Your task to perform on an android device: turn off notifications in google photos Image 0: 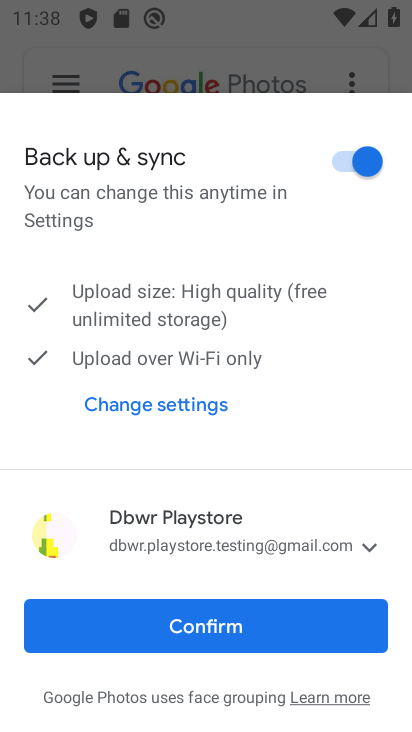
Step 0: click (218, 628)
Your task to perform on an android device: turn off notifications in google photos Image 1: 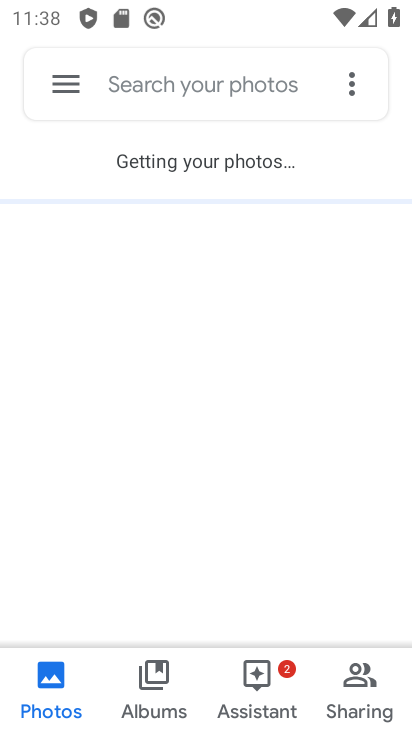
Step 1: click (70, 70)
Your task to perform on an android device: turn off notifications in google photos Image 2: 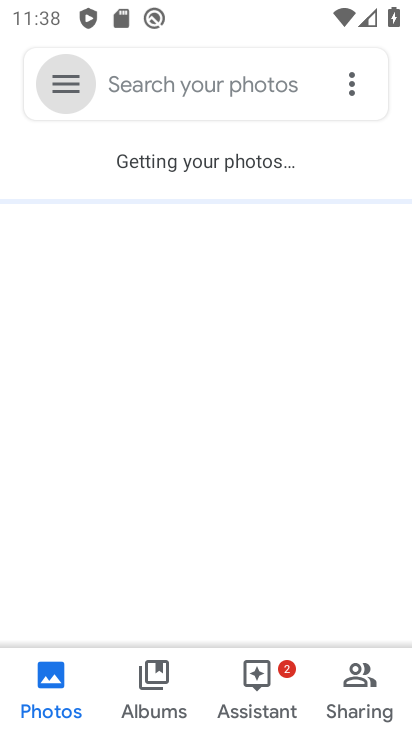
Step 2: click (70, 70)
Your task to perform on an android device: turn off notifications in google photos Image 3: 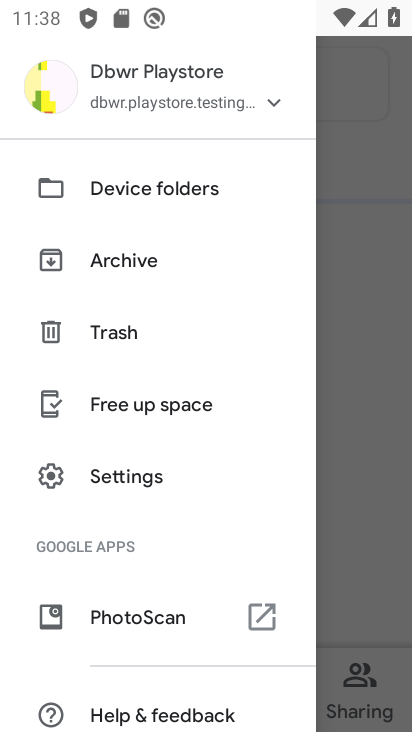
Step 3: click (117, 470)
Your task to perform on an android device: turn off notifications in google photos Image 4: 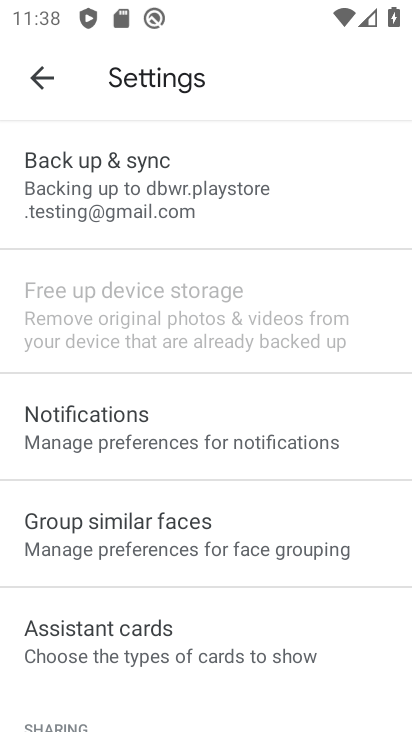
Step 4: click (109, 412)
Your task to perform on an android device: turn off notifications in google photos Image 5: 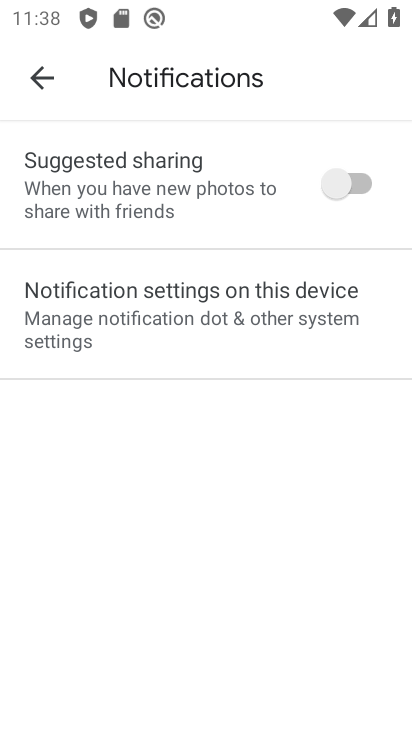
Step 5: click (166, 321)
Your task to perform on an android device: turn off notifications in google photos Image 6: 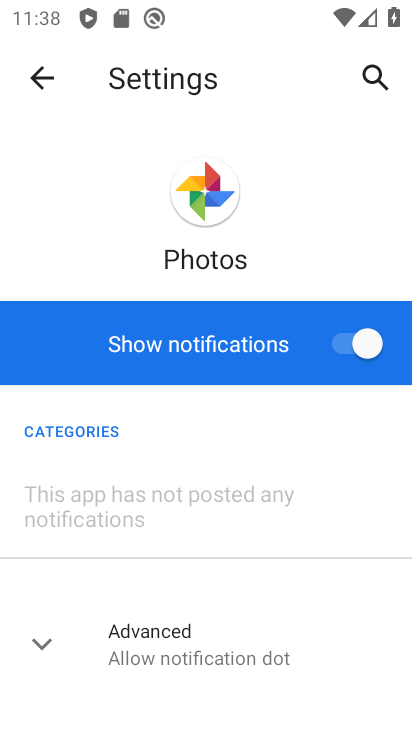
Step 6: click (373, 350)
Your task to perform on an android device: turn off notifications in google photos Image 7: 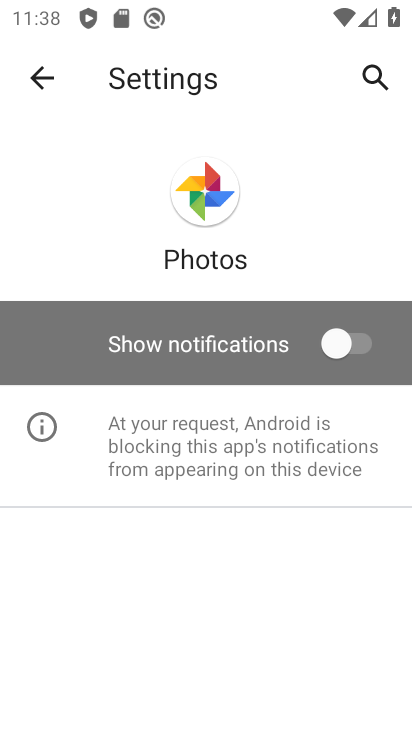
Step 7: task complete